Your task to perform on an android device: toggle location history Image 0: 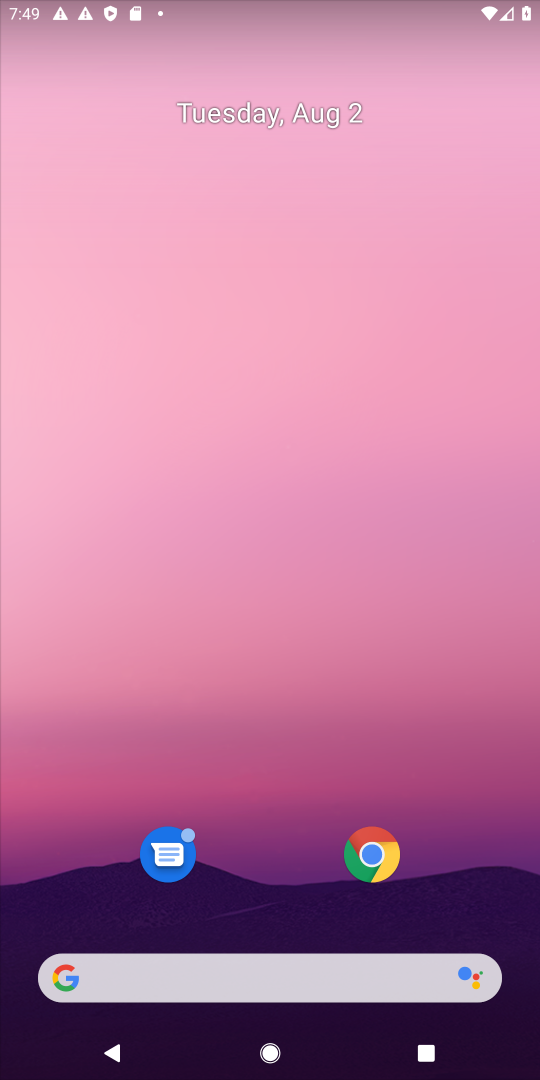
Step 0: drag from (290, 893) to (328, 119)
Your task to perform on an android device: toggle location history Image 1: 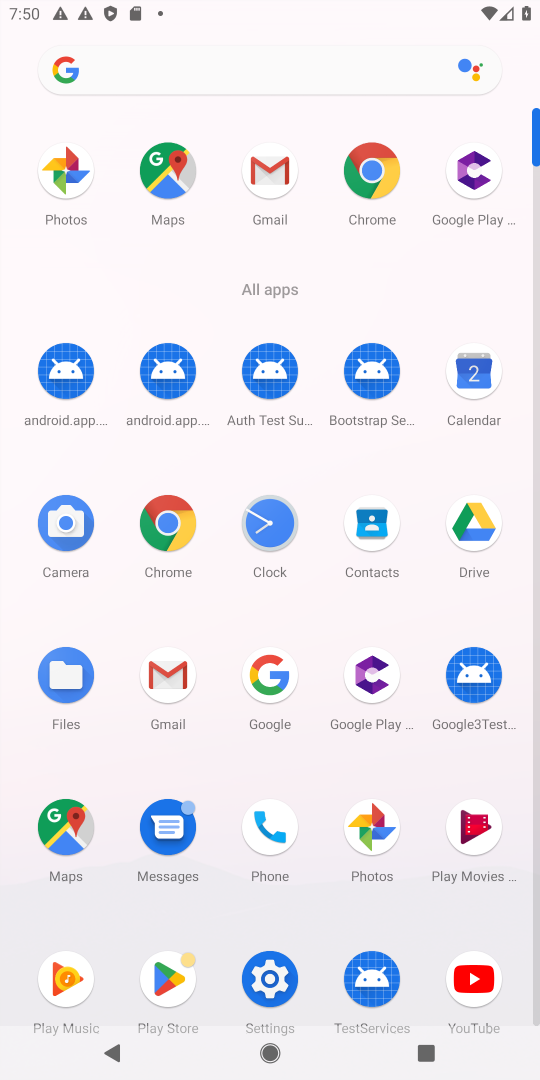
Step 1: click (260, 975)
Your task to perform on an android device: toggle location history Image 2: 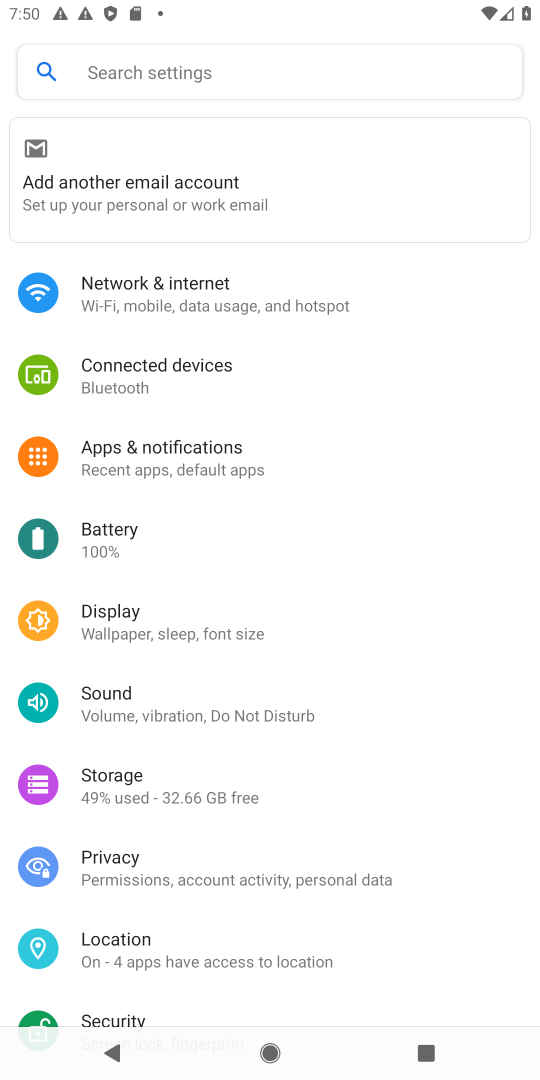
Step 2: drag from (420, 788) to (422, 611)
Your task to perform on an android device: toggle location history Image 3: 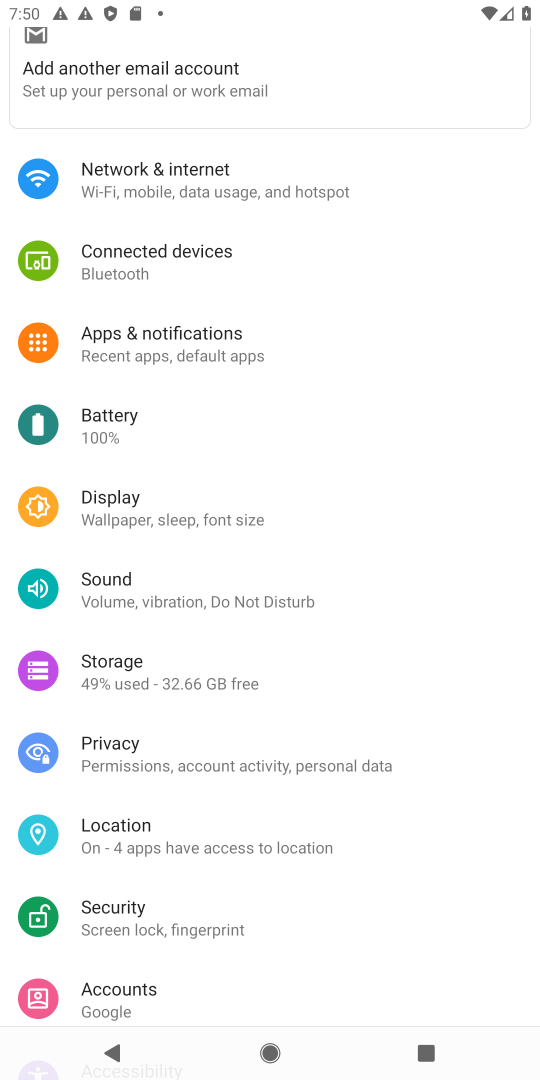
Step 3: drag from (431, 797) to (450, 539)
Your task to perform on an android device: toggle location history Image 4: 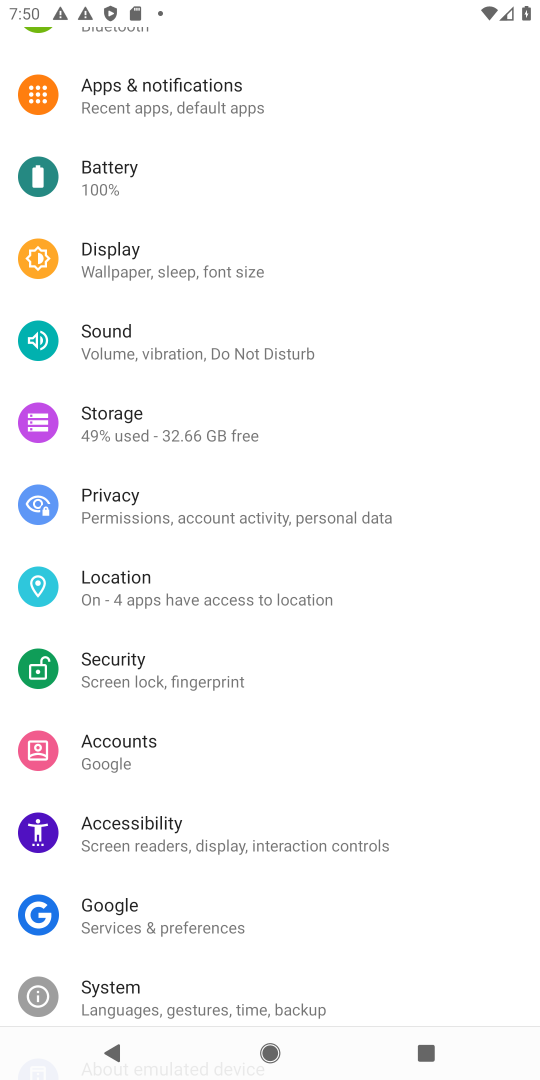
Step 4: drag from (430, 915) to (445, 605)
Your task to perform on an android device: toggle location history Image 5: 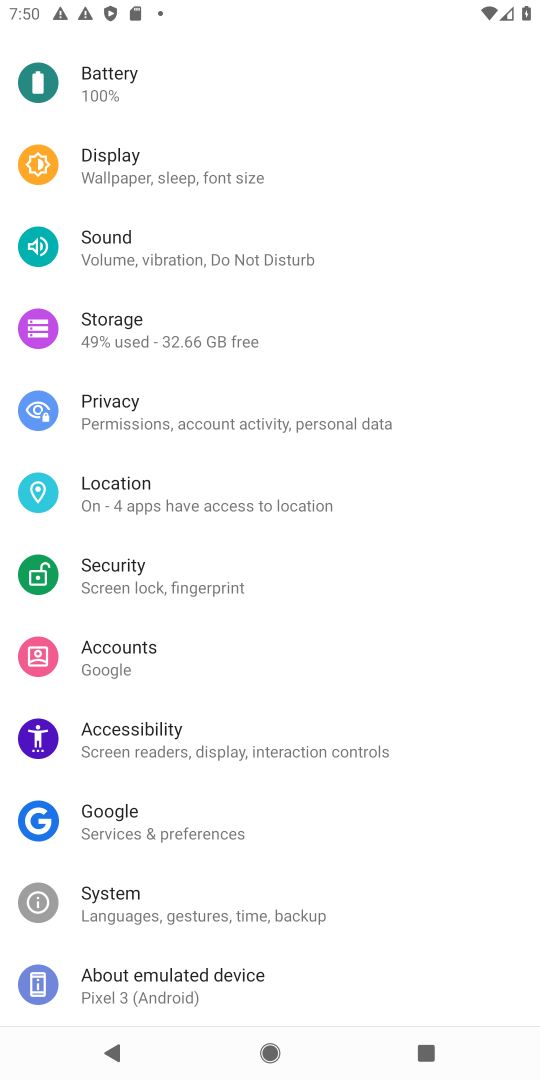
Step 5: drag from (463, 364) to (489, 718)
Your task to perform on an android device: toggle location history Image 6: 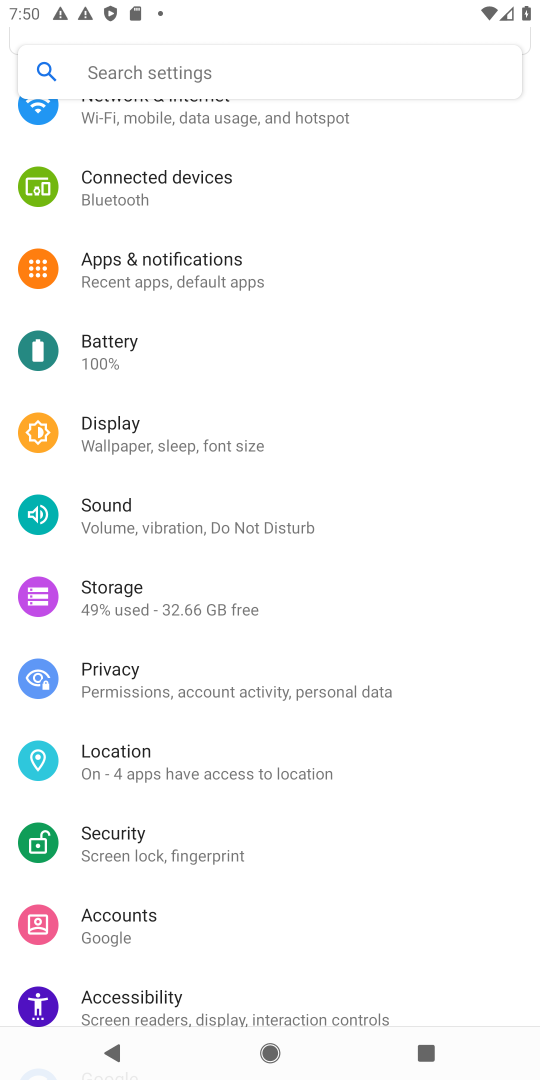
Step 6: click (263, 757)
Your task to perform on an android device: toggle location history Image 7: 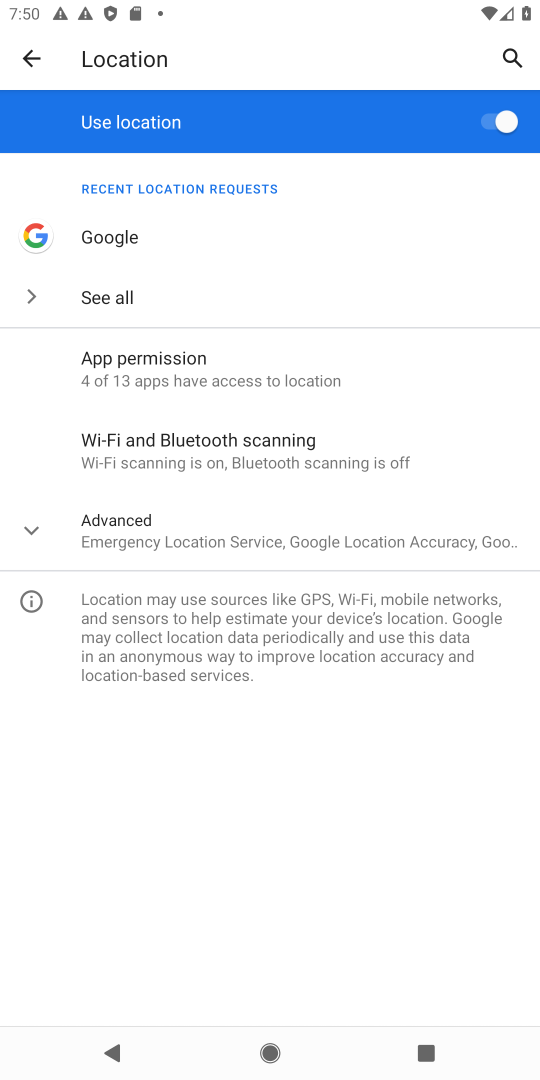
Step 7: click (285, 539)
Your task to perform on an android device: toggle location history Image 8: 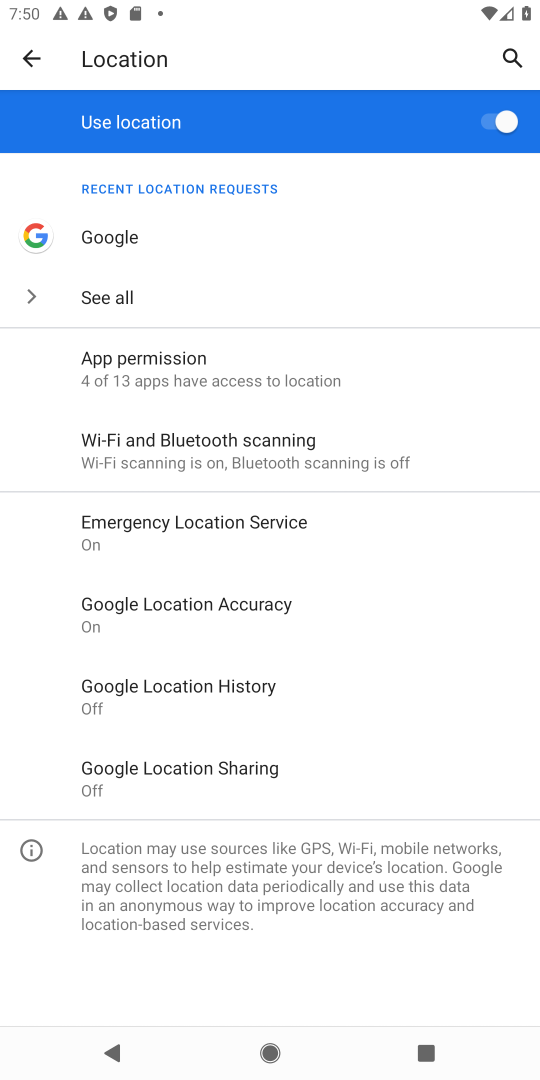
Step 8: click (224, 695)
Your task to perform on an android device: toggle location history Image 9: 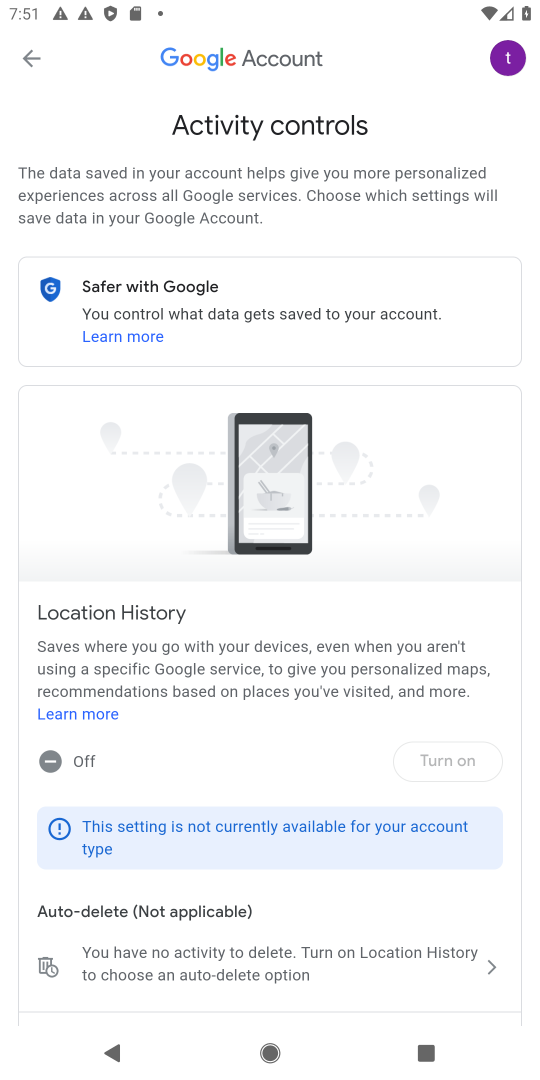
Step 9: task complete